Your task to perform on an android device: Empty the shopping cart on costco.com. Image 0: 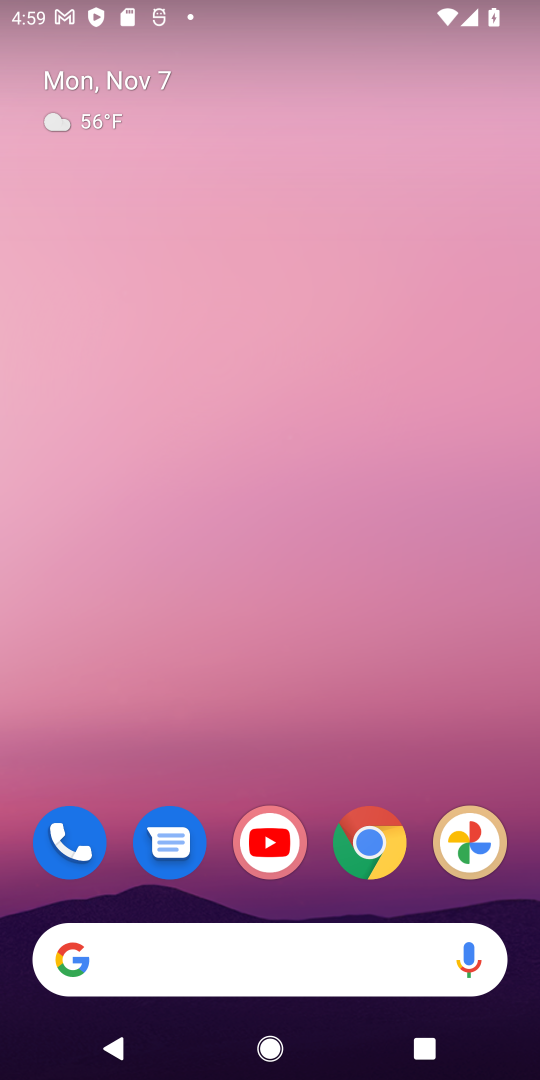
Step 0: click (372, 842)
Your task to perform on an android device: Empty the shopping cart on costco.com. Image 1: 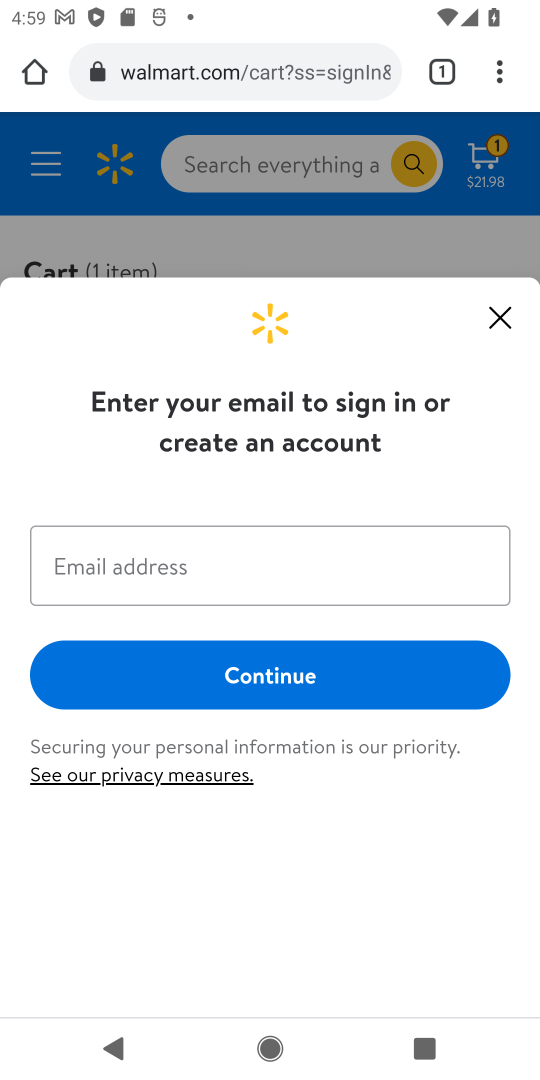
Step 1: click (498, 316)
Your task to perform on an android device: Empty the shopping cart on costco.com. Image 2: 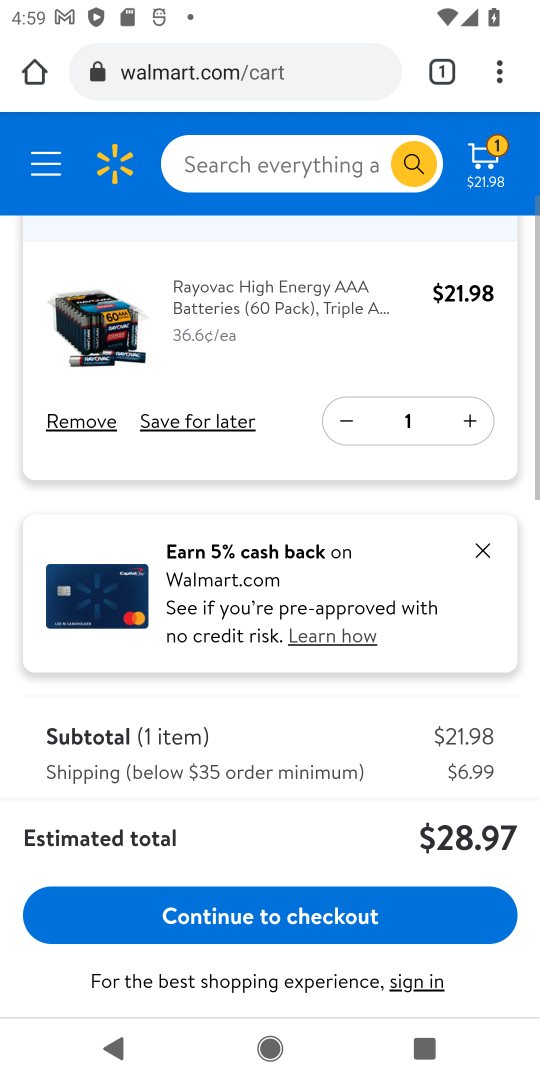
Step 2: click (290, 76)
Your task to perform on an android device: Empty the shopping cart on costco.com. Image 3: 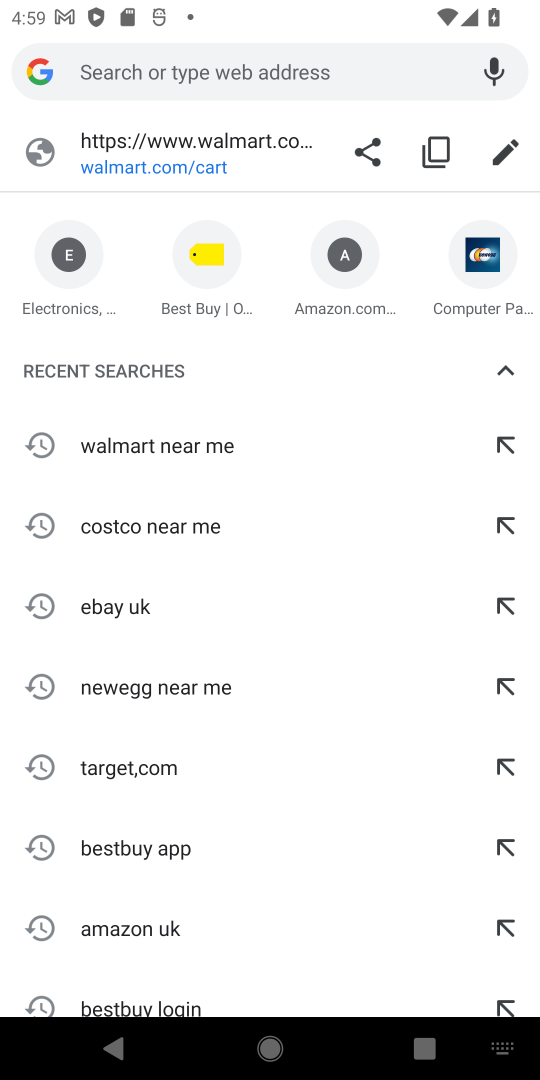
Step 3: type "costco.com"
Your task to perform on an android device: Empty the shopping cart on costco.com. Image 4: 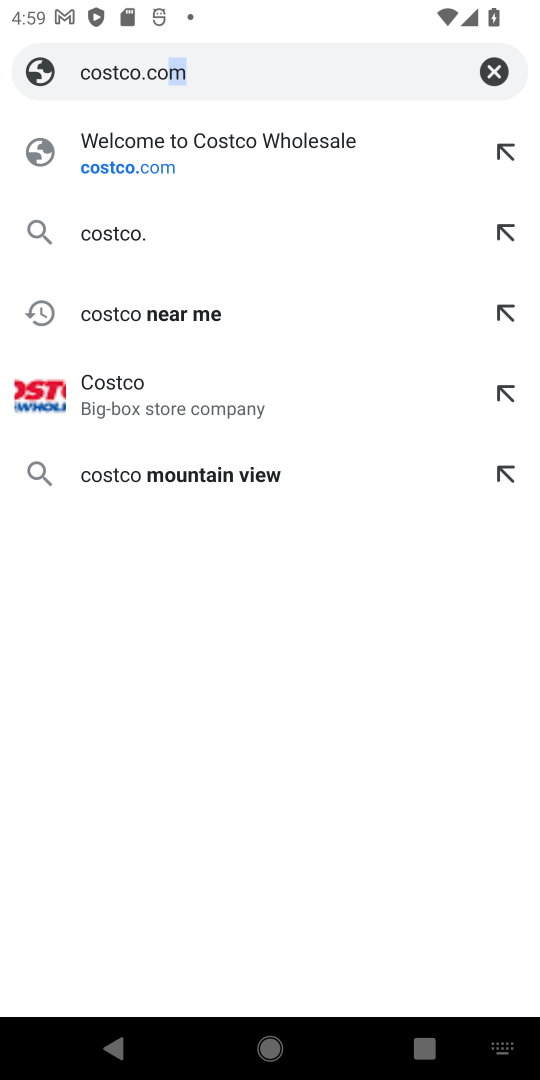
Step 4: press enter
Your task to perform on an android device: Empty the shopping cart on costco.com. Image 5: 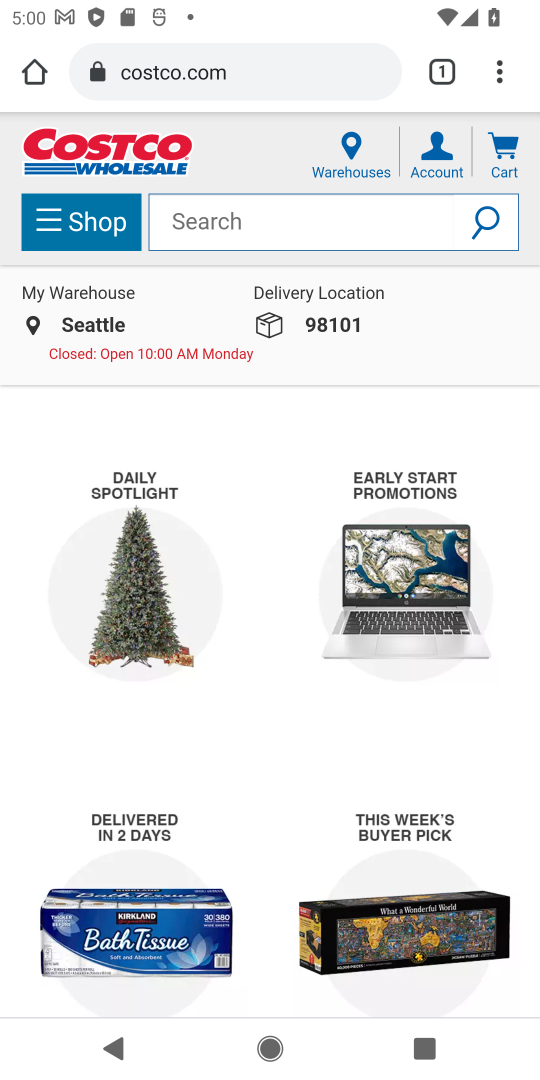
Step 5: click (499, 144)
Your task to perform on an android device: Empty the shopping cart on costco.com. Image 6: 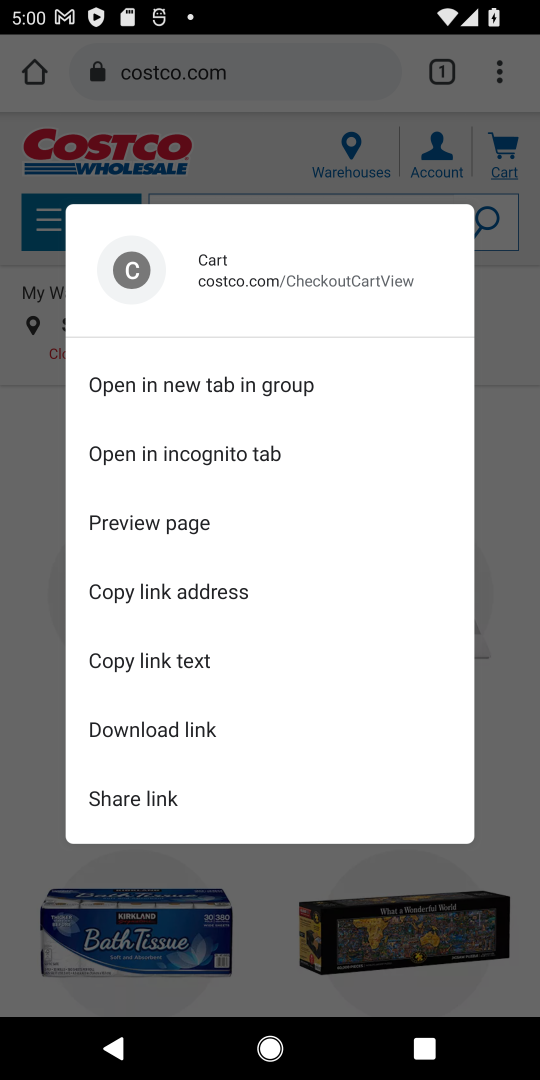
Step 6: click (499, 144)
Your task to perform on an android device: Empty the shopping cart on costco.com. Image 7: 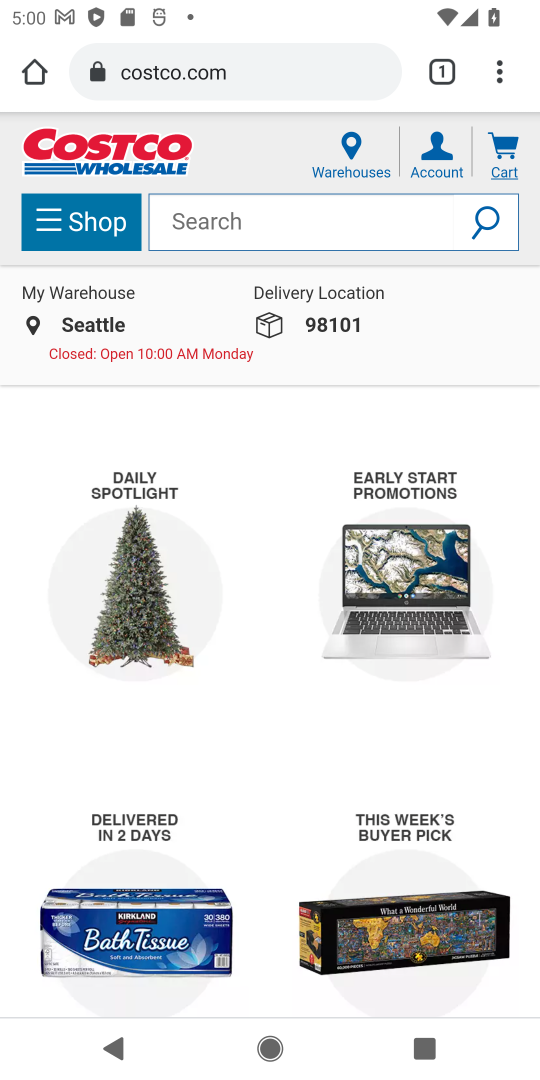
Step 7: click (504, 144)
Your task to perform on an android device: Empty the shopping cart on costco.com. Image 8: 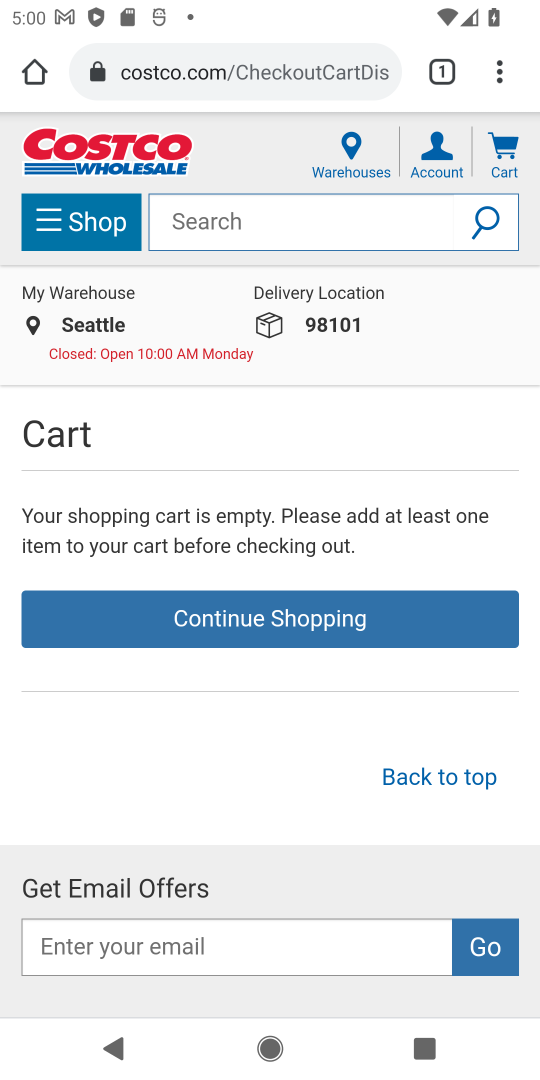
Step 8: click (494, 142)
Your task to perform on an android device: Empty the shopping cart on costco.com. Image 9: 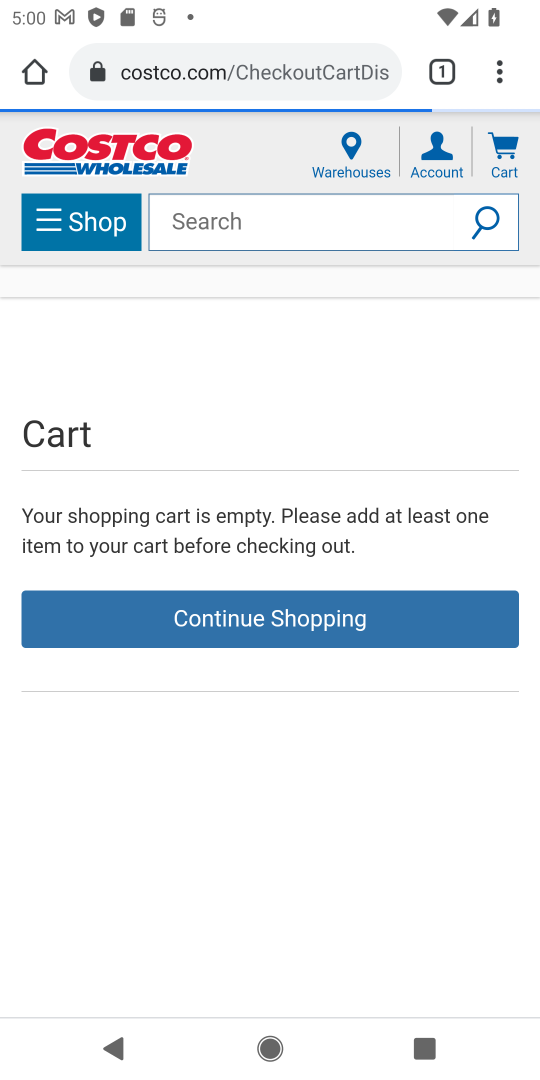
Step 9: task complete